Your task to perform on an android device: Go to CNN.com Image 0: 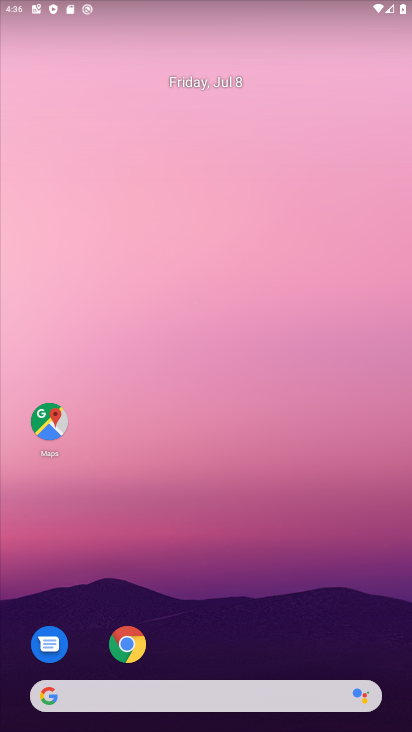
Step 0: press home button
Your task to perform on an android device: Go to CNN.com Image 1: 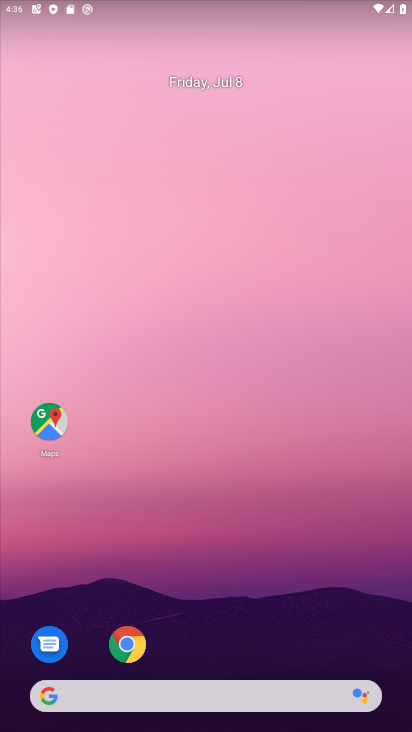
Step 1: drag from (209, 665) to (202, 2)
Your task to perform on an android device: Go to CNN.com Image 2: 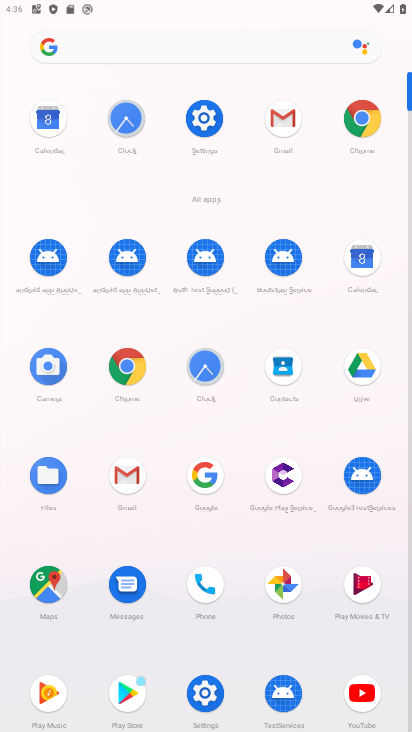
Step 2: click (363, 118)
Your task to perform on an android device: Go to CNN.com Image 3: 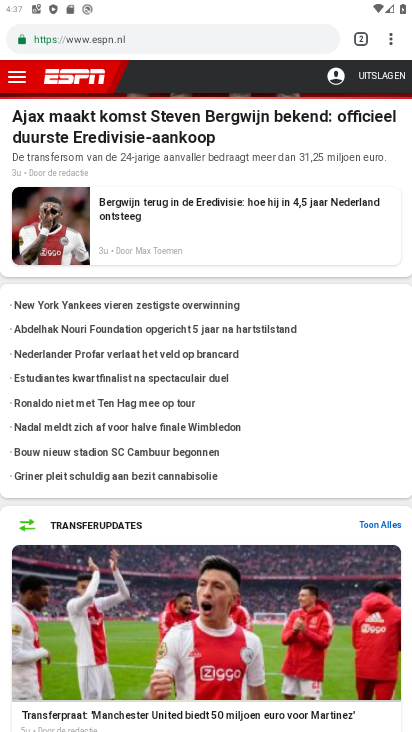
Step 3: click (357, 37)
Your task to perform on an android device: Go to CNN.com Image 4: 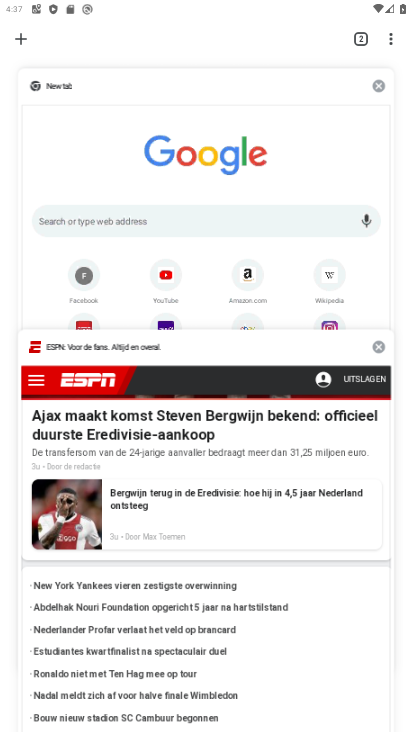
Step 4: click (10, 40)
Your task to perform on an android device: Go to CNN.com Image 5: 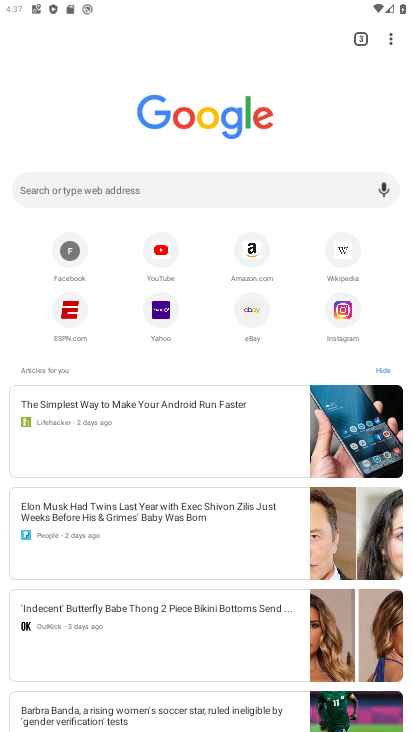
Step 5: click (104, 192)
Your task to perform on an android device: Go to CNN.com Image 6: 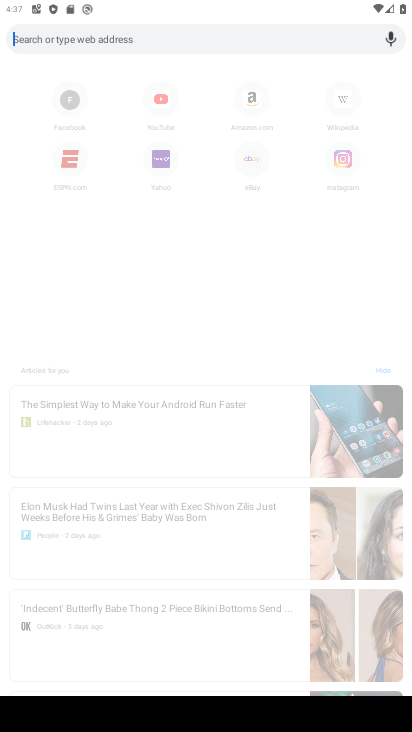
Step 6: type "cnn.com"
Your task to perform on an android device: Go to CNN.com Image 7: 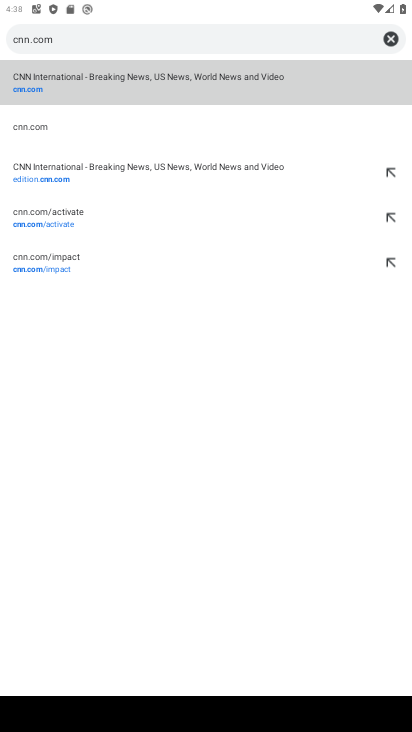
Step 7: click (65, 93)
Your task to perform on an android device: Go to CNN.com Image 8: 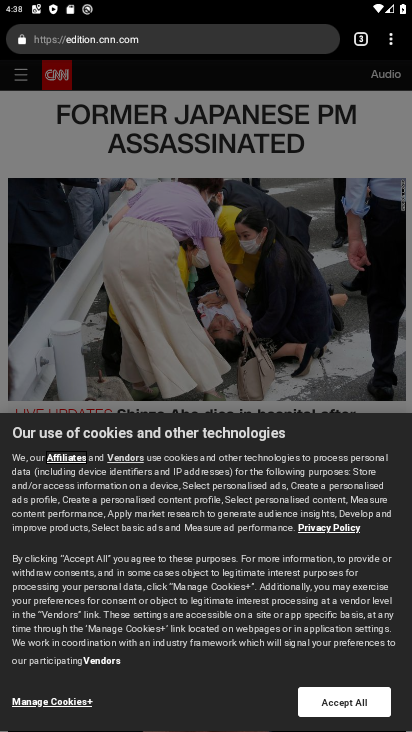
Step 8: click (352, 706)
Your task to perform on an android device: Go to CNN.com Image 9: 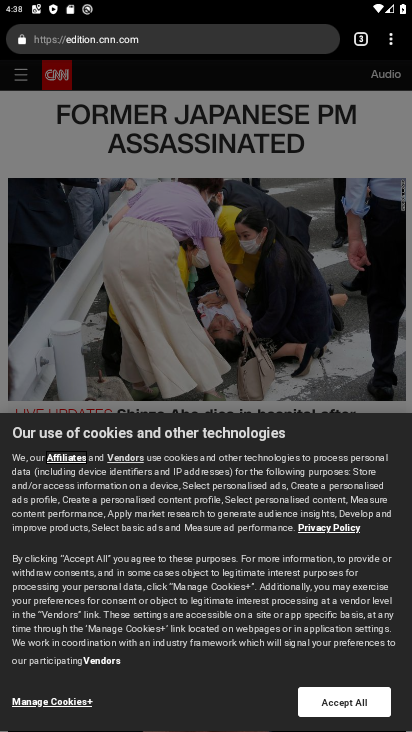
Step 9: task complete